Your task to perform on an android device: Show me the alarms in the clock app Image 0: 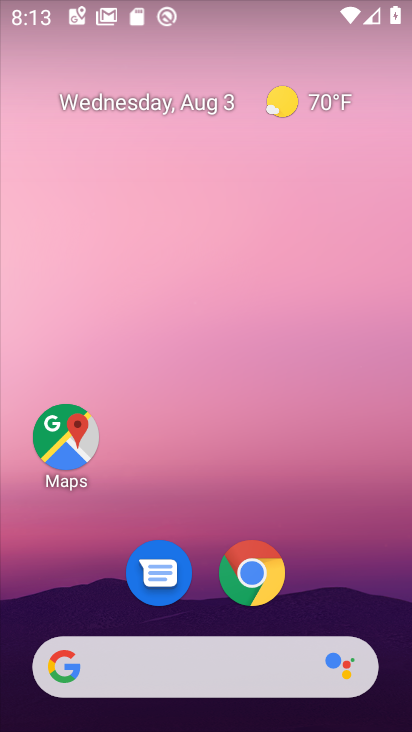
Step 0: drag from (362, 627) to (322, 30)
Your task to perform on an android device: Show me the alarms in the clock app Image 1: 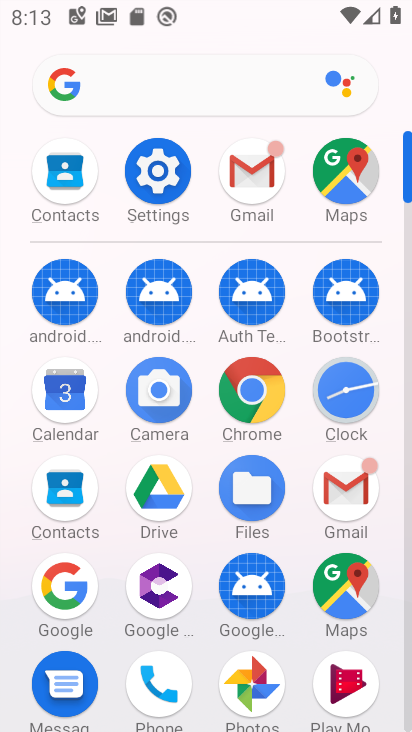
Step 1: click (348, 409)
Your task to perform on an android device: Show me the alarms in the clock app Image 2: 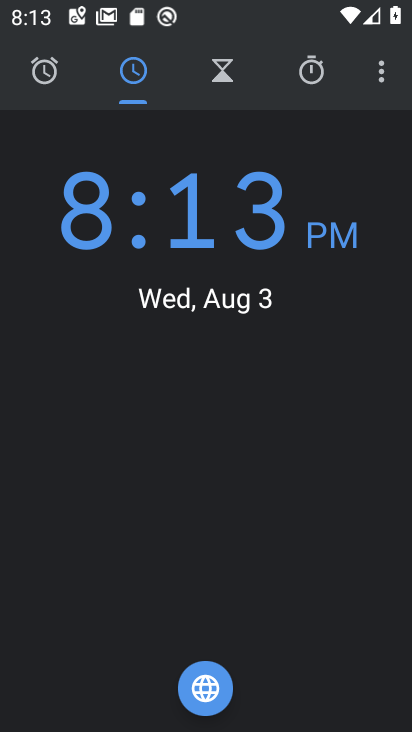
Step 2: click (43, 75)
Your task to perform on an android device: Show me the alarms in the clock app Image 3: 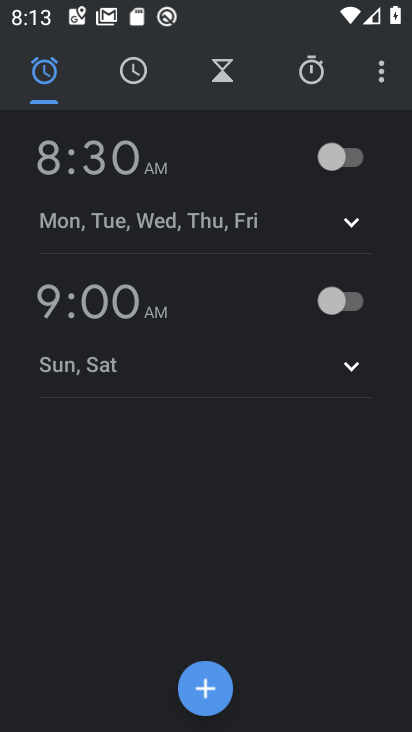
Step 3: task complete